Your task to perform on an android device: Go to network settings Image 0: 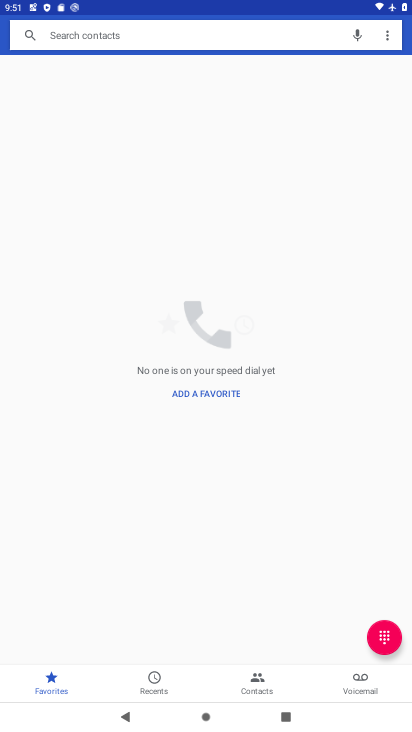
Step 0: press home button
Your task to perform on an android device: Go to network settings Image 1: 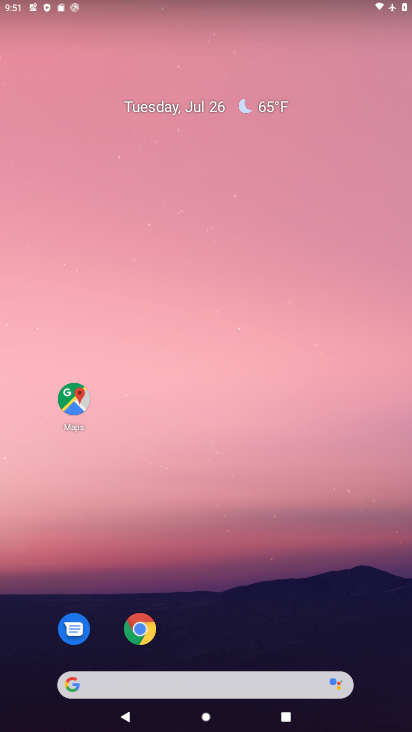
Step 1: drag from (256, 577) to (264, 94)
Your task to perform on an android device: Go to network settings Image 2: 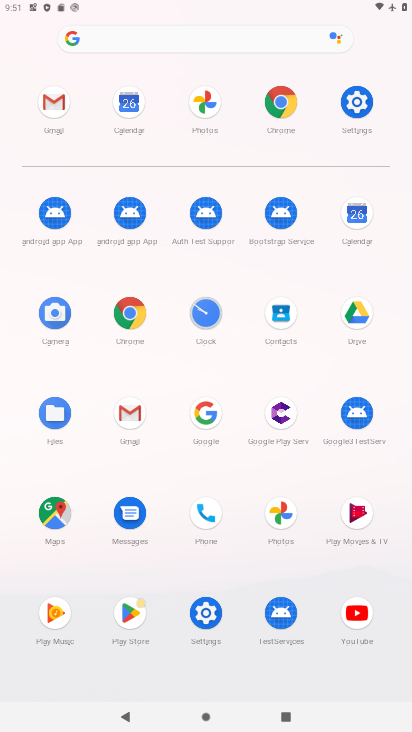
Step 2: click (354, 98)
Your task to perform on an android device: Go to network settings Image 3: 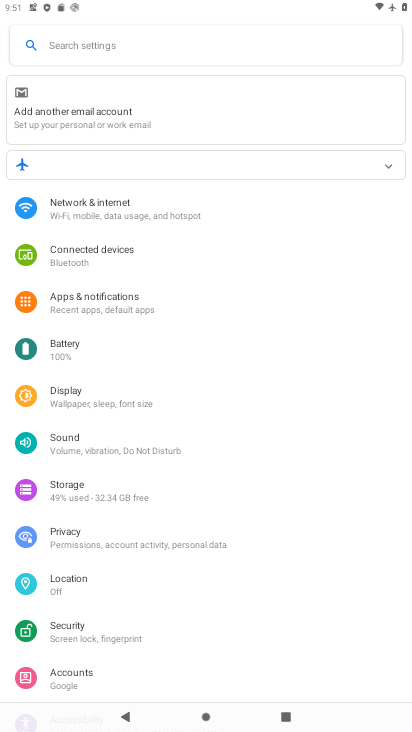
Step 3: click (87, 201)
Your task to perform on an android device: Go to network settings Image 4: 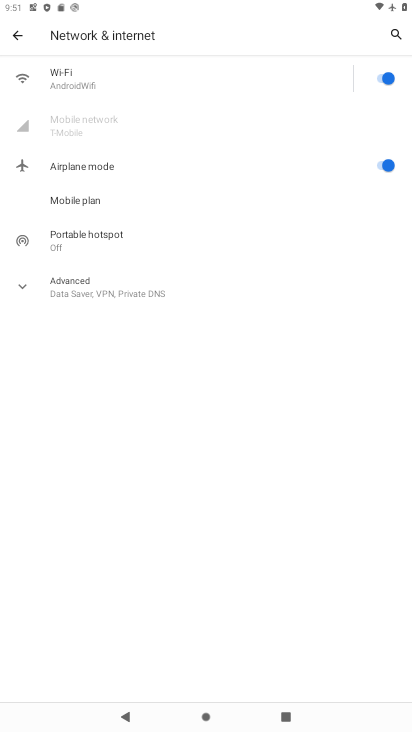
Step 4: click (168, 286)
Your task to perform on an android device: Go to network settings Image 5: 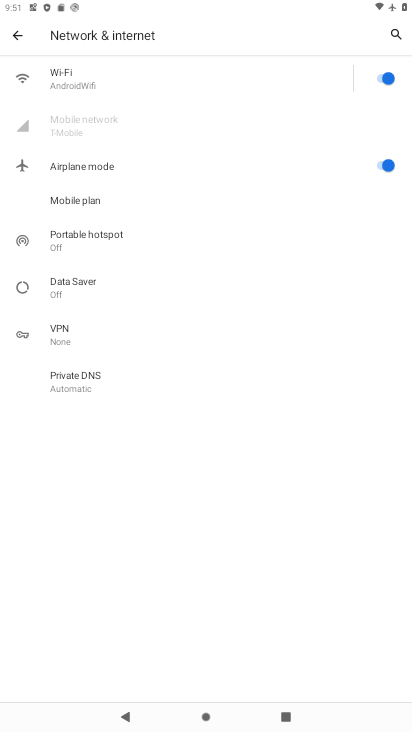
Step 5: task complete